Your task to perform on an android device: all mails in gmail Image 0: 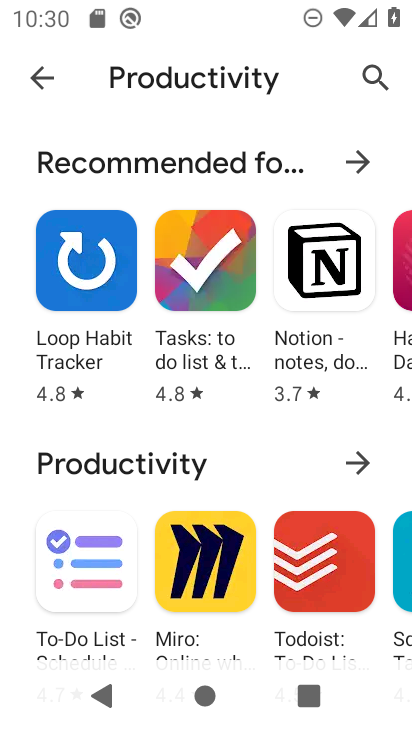
Step 0: press home button
Your task to perform on an android device: all mails in gmail Image 1: 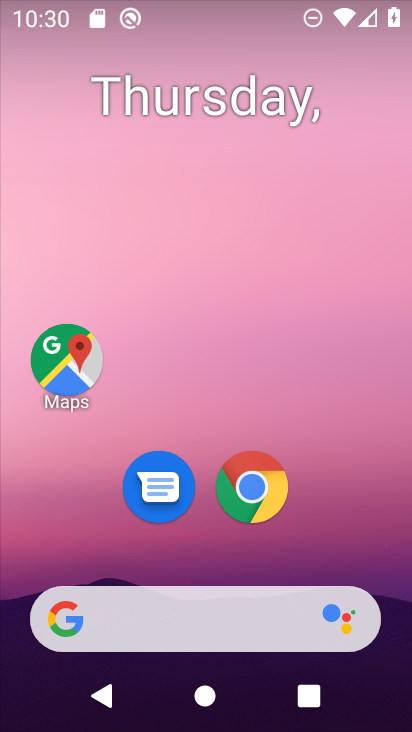
Step 1: drag from (350, 516) to (173, 122)
Your task to perform on an android device: all mails in gmail Image 2: 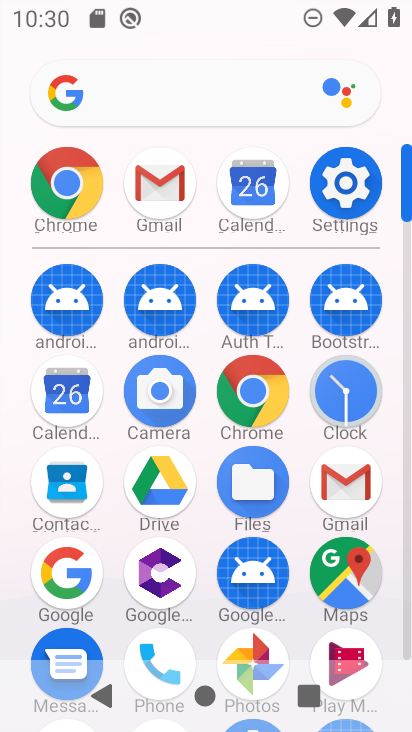
Step 2: click (159, 188)
Your task to perform on an android device: all mails in gmail Image 3: 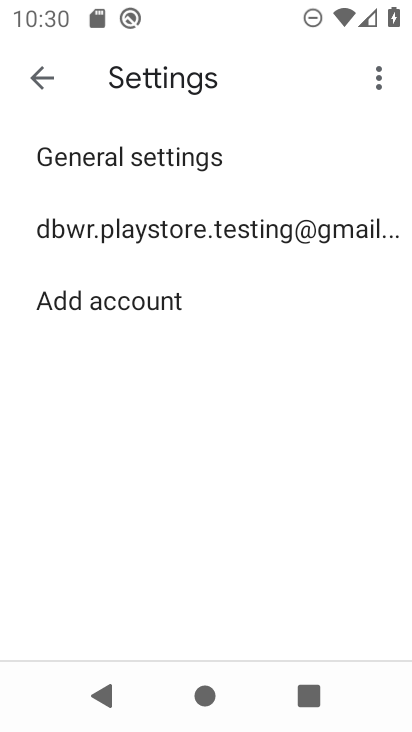
Step 3: click (40, 83)
Your task to perform on an android device: all mails in gmail Image 4: 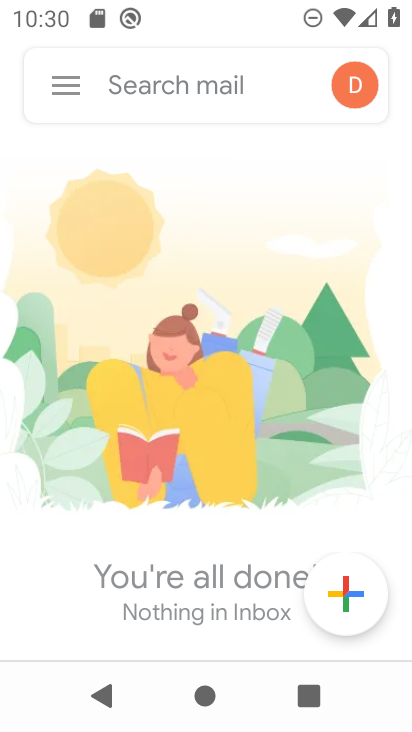
Step 4: click (40, 83)
Your task to perform on an android device: all mails in gmail Image 5: 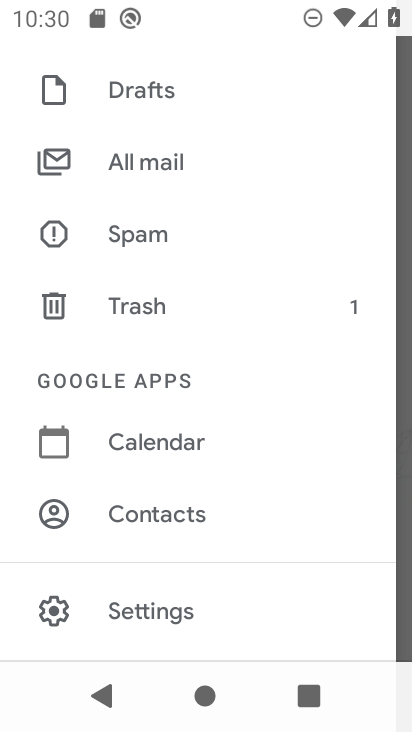
Step 5: click (132, 156)
Your task to perform on an android device: all mails in gmail Image 6: 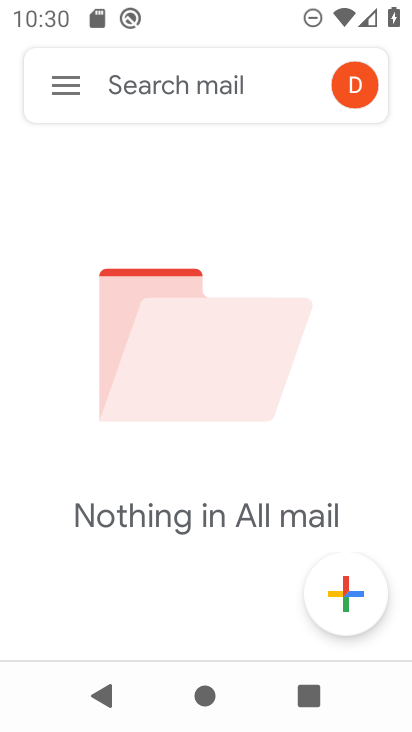
Step 6: task complete